Your task to perform on an android device: change timer sound Image 0: 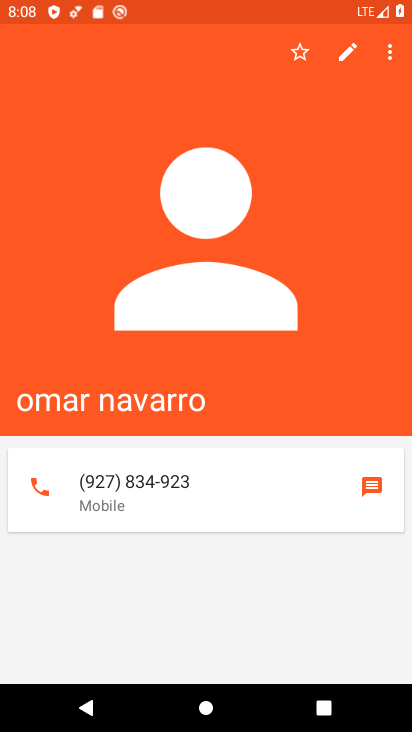
Step 0: press back button
Your task to perform on an android device: change timer sound Image 1: 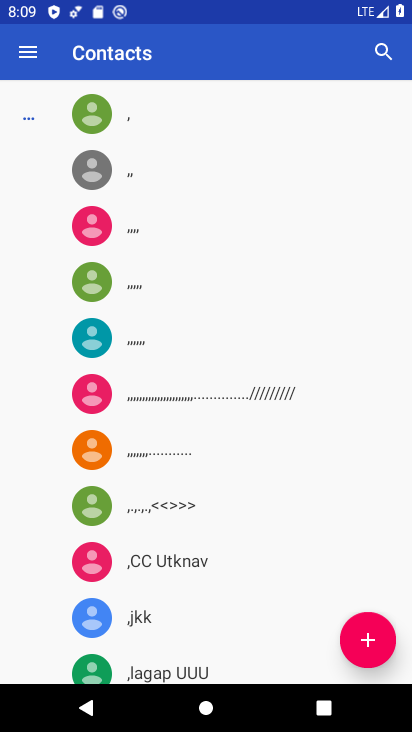
Step 1: press home button
Your task to perform on an android device: change timer sound Image 2: 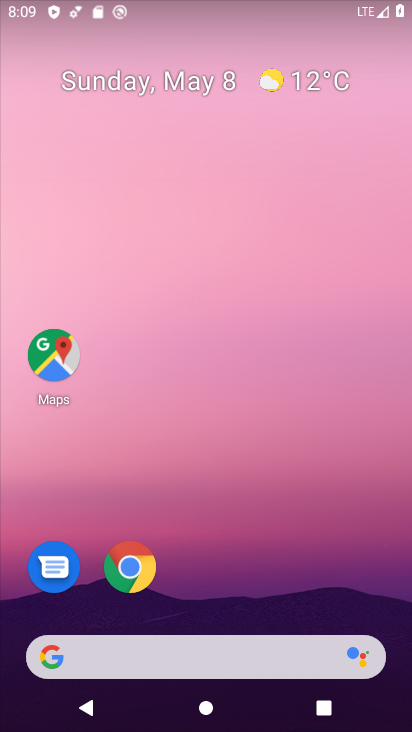
Step 2: drag from (161, 634) to (187, 165)
Your task to perform on an android device: change timer sound Image 3: 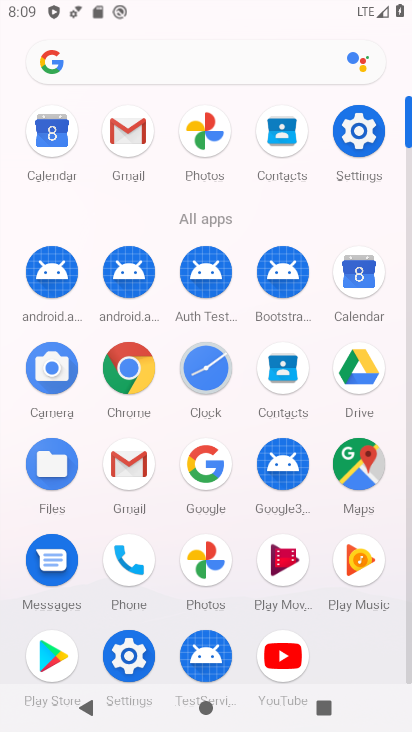
Step 3: click (207, 357)
Your task to perform on an android device: change timer sound Image 4: 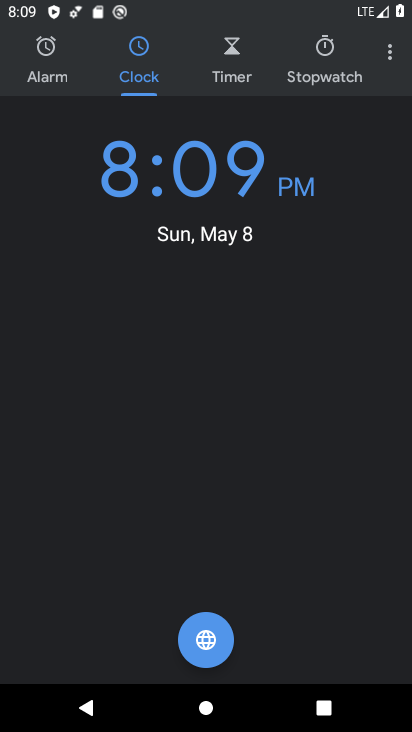
Step 4: click (395, 60)
Your task to perform on an android device: change timer sound Image 5: 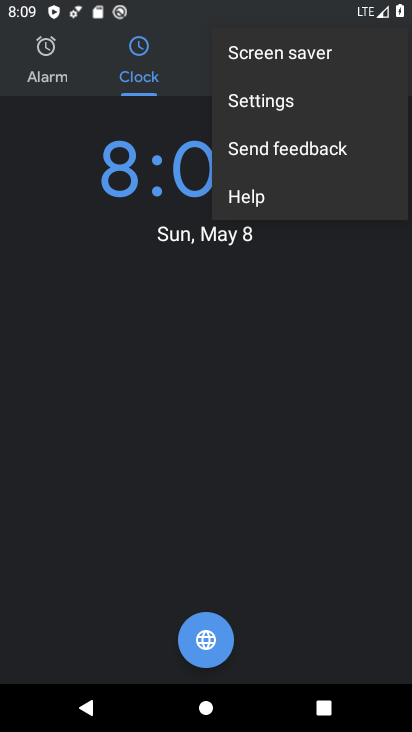
Step 5: click (295, 108)
Your task to perform on an android device: change timer sound Image 6: 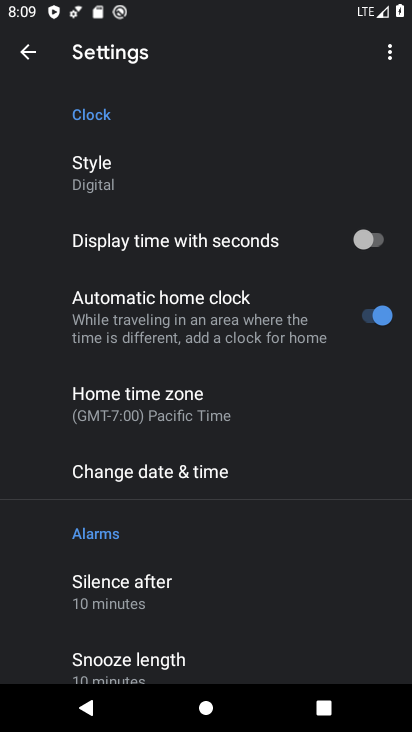
Step 6: drag from (214, 550) to (221, 23)
Your task to perform on an android device: change timer sound Image 7: 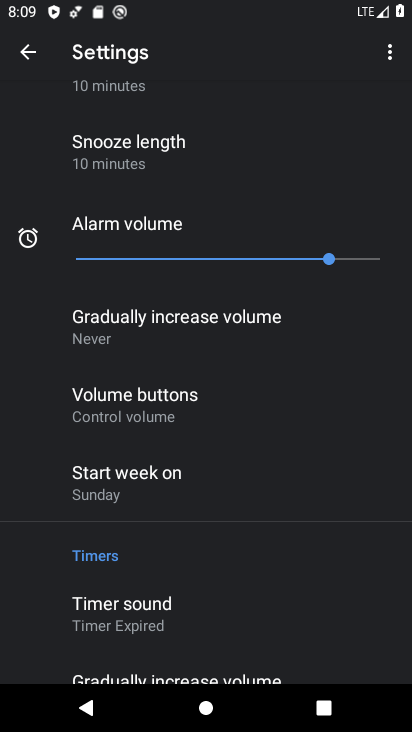
Step 7: click (153, 615)
Your task to perform on an android device: change timer sound Image 8: 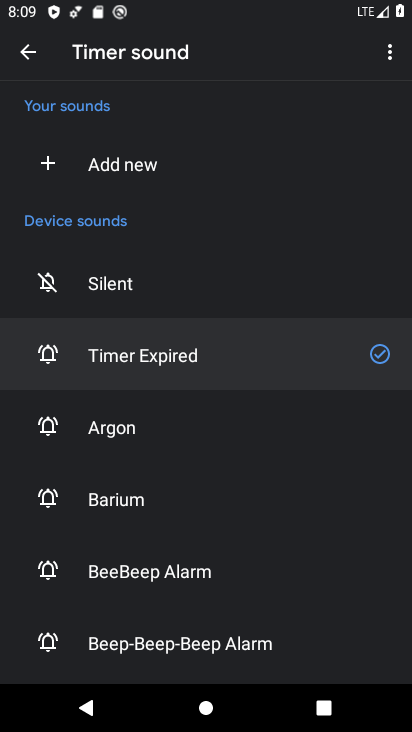
Step 8: click (137, 513)
Your task to perform on an android device: change timer sound Image 9: 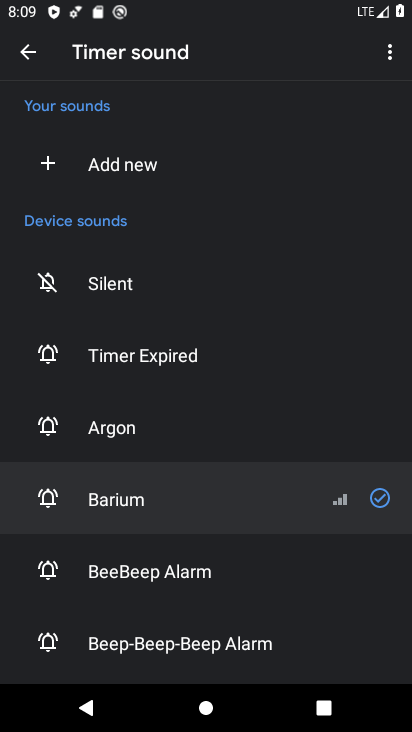
Step 9: task complete